Your task to perform on an android device: Open Chrome and go to settings Image 0: 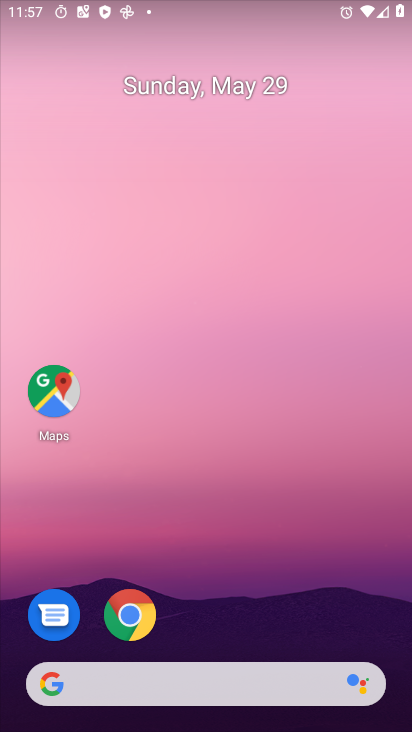
Step 0: click (133, 612)
Your task to perform on an android device: Open Chrome and go to settings Image 1: 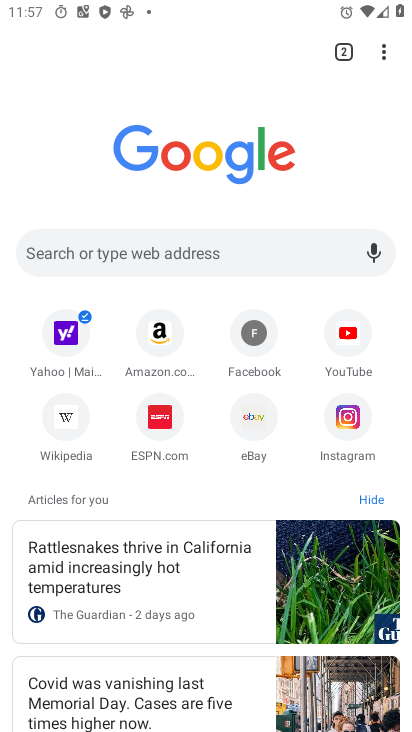
Step 1: click (375, 55)
Your task to perform on an android device: Open Chrome and go to settings Image 2: 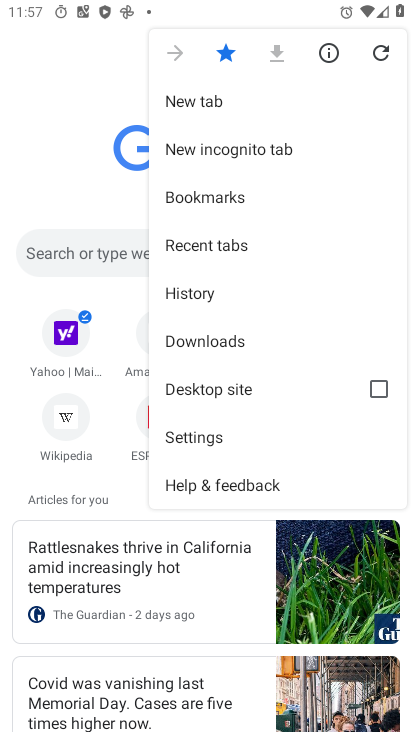
Step 2: click (195, 434)
Your task to perform on an android device: Open Chrome and go to settings Image 3: 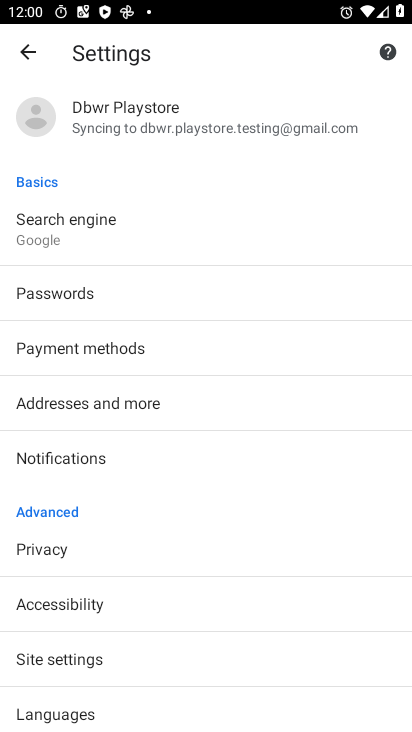
Step 3: task complete